Your task to perform on an android device: Open sound settings Image 0: 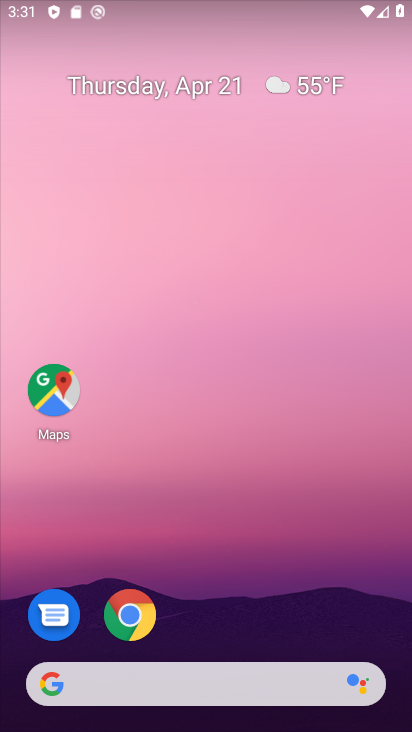
Step 0: drag from (308, 541) to (177, 2)
Your task to perform on an android device: Open sound settings Image 1: 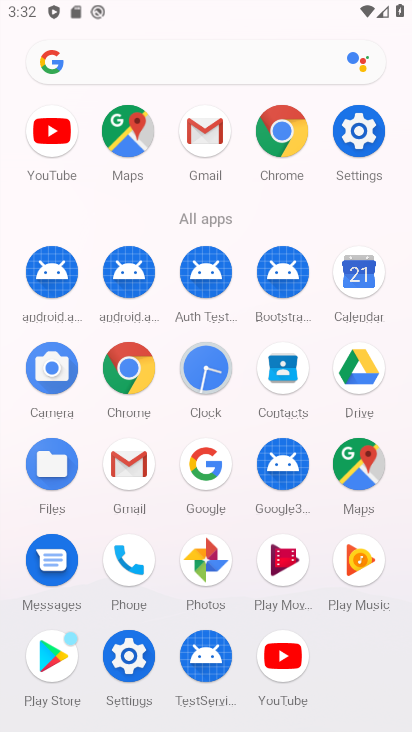
Step 1: drag from (25, 328) to (25, 212)
Your task to perform on an android device: Open sound settings Image 2: 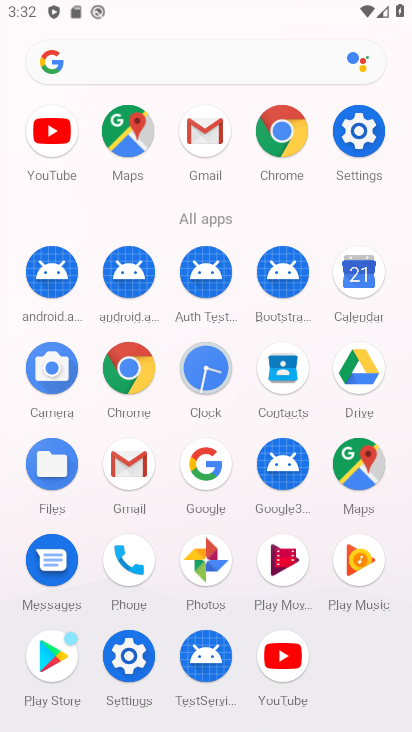
Step 2: click (360, 127)
Your task to perform on an android device: Open sound settings Image 3: 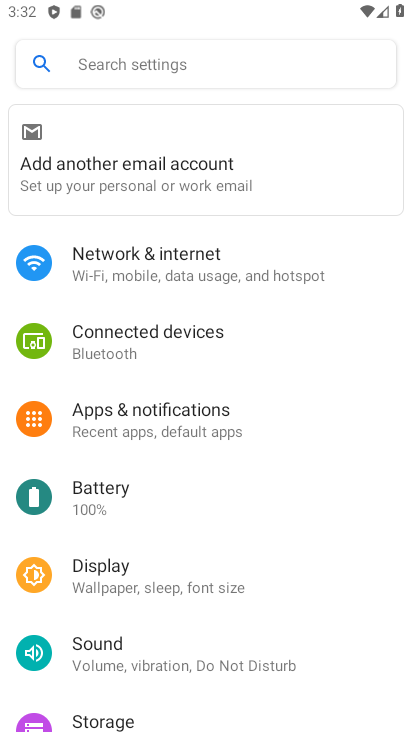
Step 3: drag from (325, 531) to (313, 314)
Your task to perform on an android device: Open sound settings Image 4: 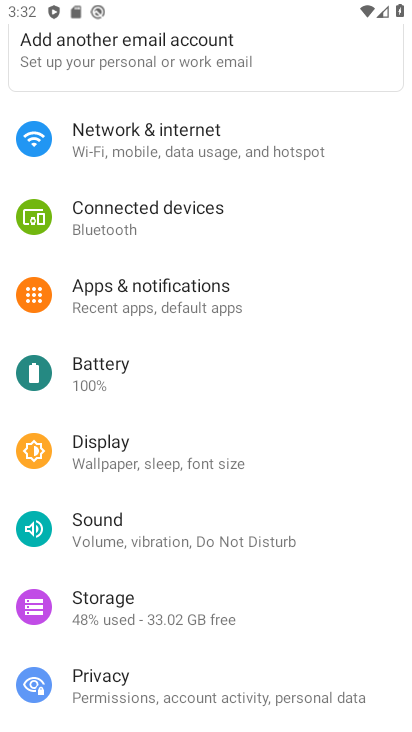
Step 4: click (142, 524)
Your task to perform on an android device: Open sound settings Image 5: 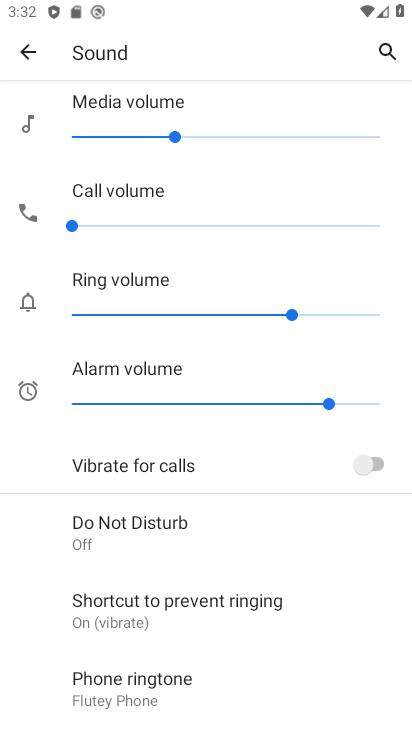
Step 5: drag from (230, 590) to (223, 199)
Your task to perform on an android device: Open sound settings Image 6: 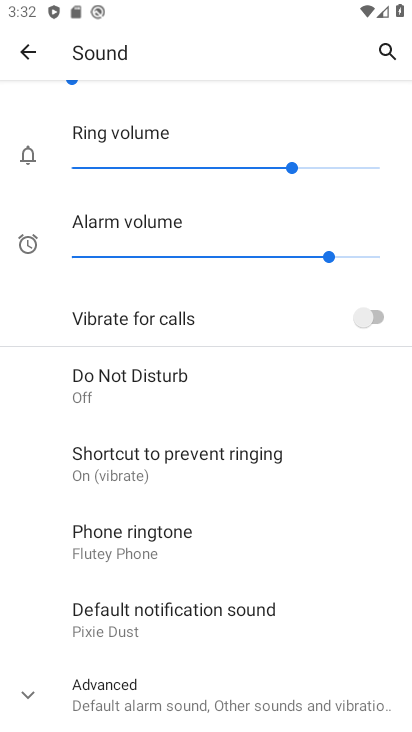
Step 6: drag from (235, 527) to (257, 159)
Your task to perform on an android device: Open sound settings Image 7: 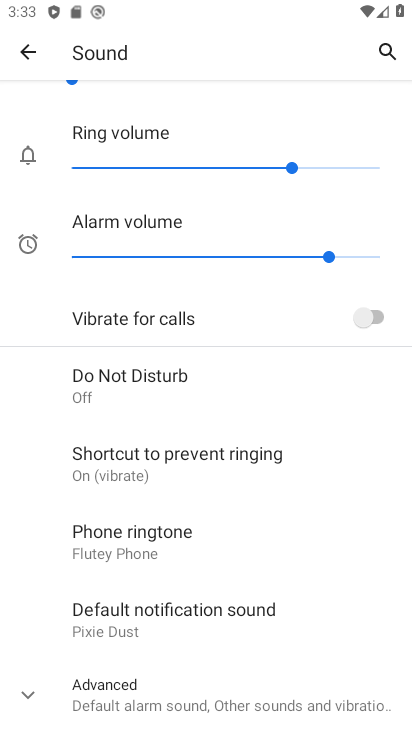
Step 7: drag from (211, 504) to (229, 176)
Your task to perform on an android device: Open sound settings Image 8: 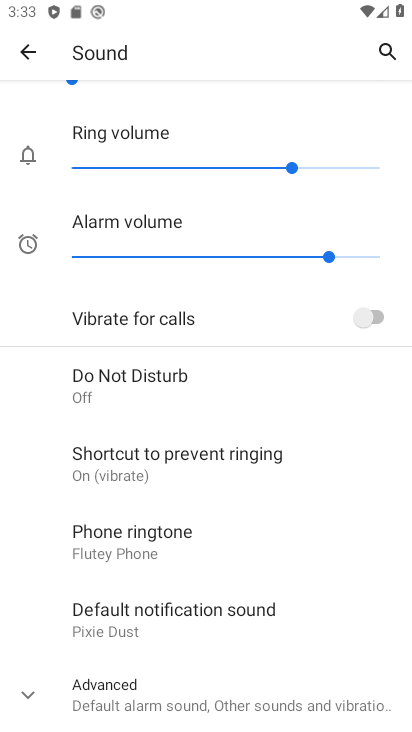
Step 8: click (27, 681)
Your task to perform on an android device: Open sound settings Image 9: 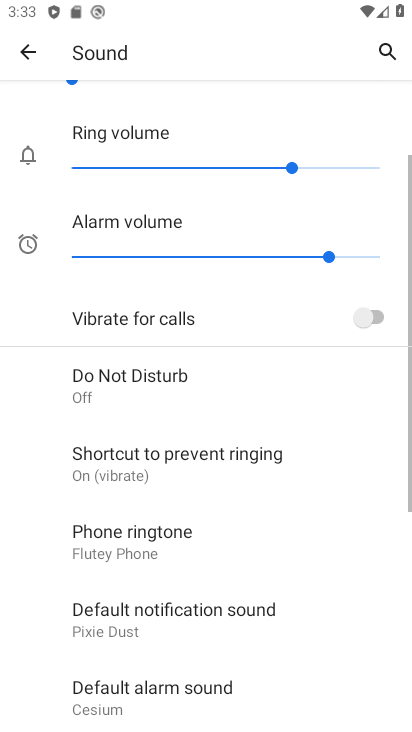
Step 9: task complete